Your task to perform on an android device: Show me the alarms in the clock app Image 0: 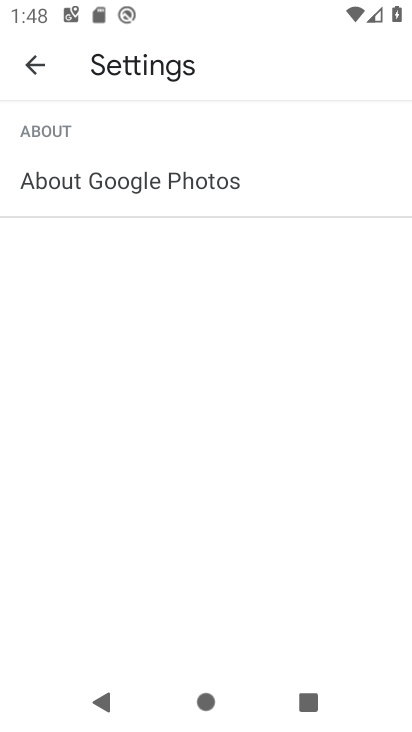
Step 0: press home button
Your task to perform on an android device: Show me the alarms in the clock app Image 1: 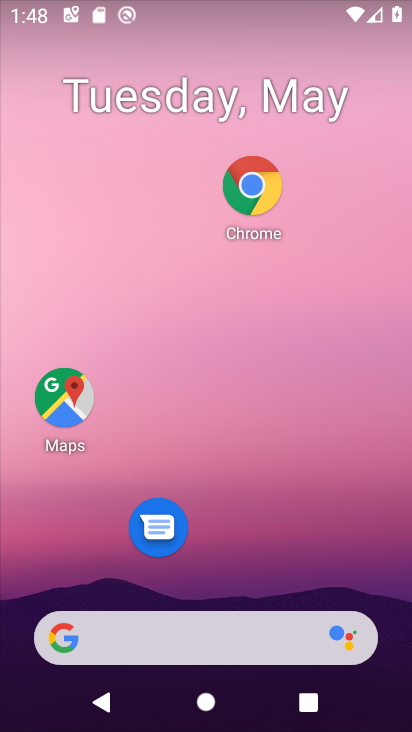
Step 1: drag from (245, 507) to (135, 98)
Your task to perform on an android device: Show me the alarms in the clock app Image 2: 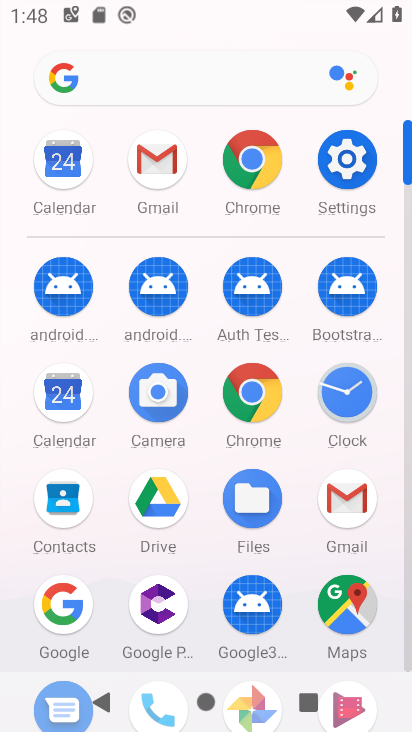
Step 2: click (347, 385)
Your task to perform on an android device: Show me the alarms in the clock app Image 3: 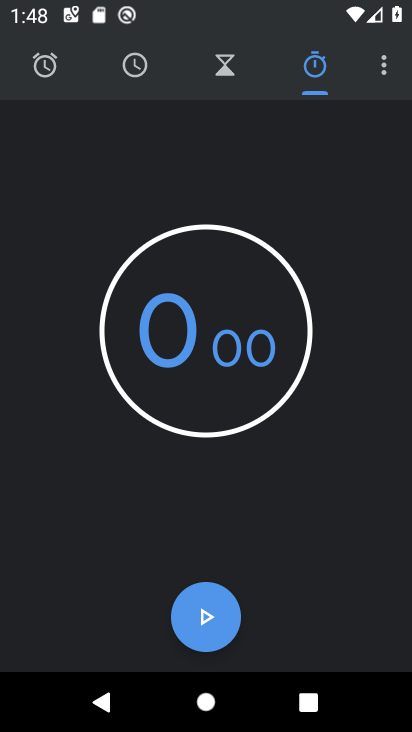
Step 3: click (35, 57)
Your task to perform on an android device: Show me the alarms in the clock app Image 4: 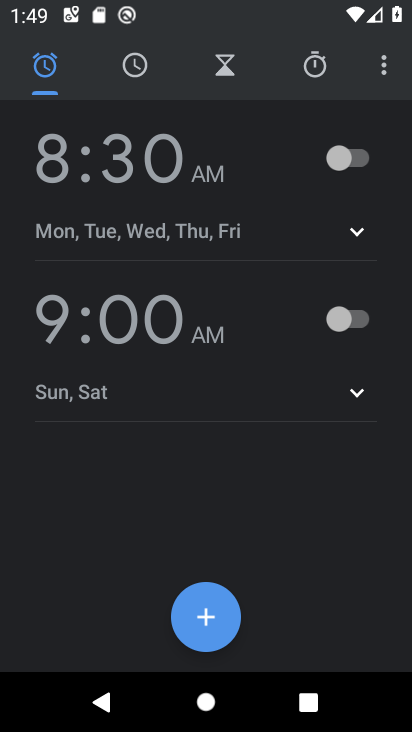
Step 4: task complete